Your task to perform on an android device: turn vacation reply on in the gmail app Image 0: 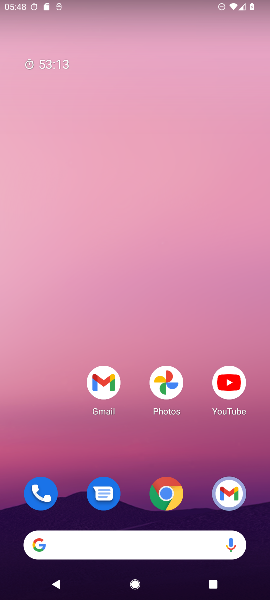
Step 0: press home button
Your task to perform on an android device: turn vacation reply on in the gmail app Image 1: 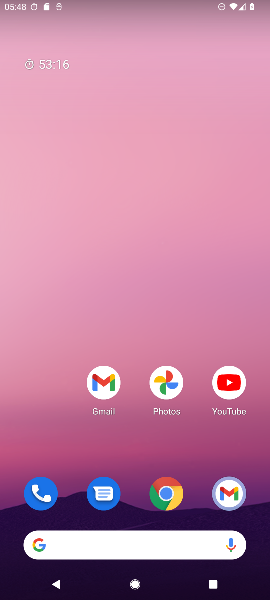
Step 1: drag from (58, 458) to (65, 114)
Your task to perform on an android device: turn vacation reply on in the gmail app Image 2: 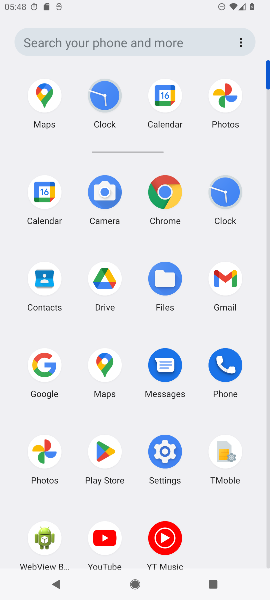
Step 2: click (224, 280)
Your task to perform on an android device: turn vacation reply on in the gmail app Image 3: 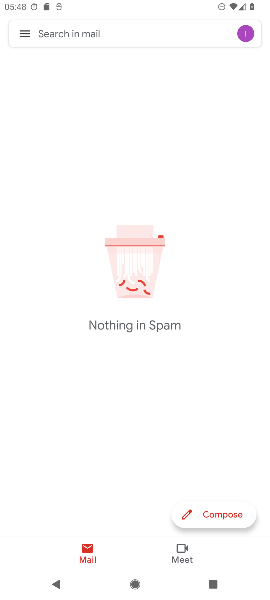
Step 3: click (23, 29)
Your task to perform on an android device: turn vacation reply on in the gmail app Image 4: 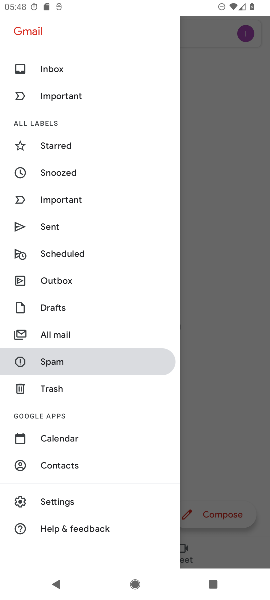
Step 4: click (72, 503)
Your task to perform on an android device: turn vacation reply on in the gmail app Image 5: 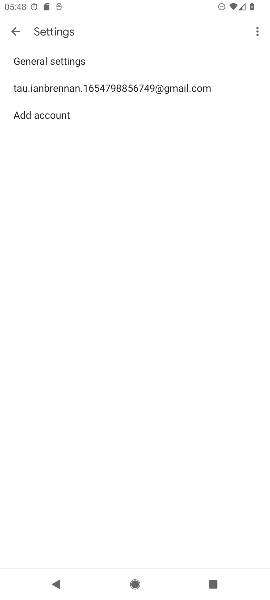
Step 5: click (156, 89)
Your task to perform on an android device: turn vacation reply on in the gmail app Image 6: 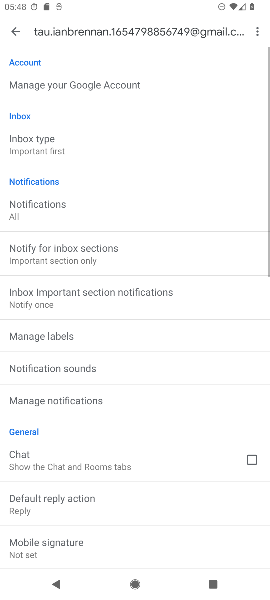
Step 6: drag from (200, 373) to (216, 254)
Your task to perform on an android device: turn vacation reply on in the gmail app Image 7: 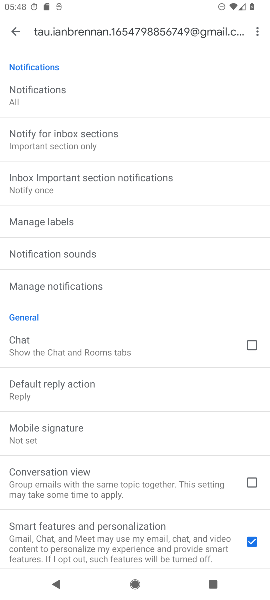
Step 7: drag from (196, 401) to (201, 294)
Your task to perform on an android device: turn vacation reply on in the gmail app Image 8: 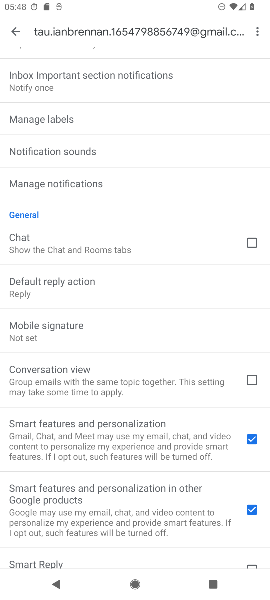
Step 8: drag from (187, 454) to (197, 301)
Your task to perform on an android device: turn vacation reply on in the gmail app Image 9: 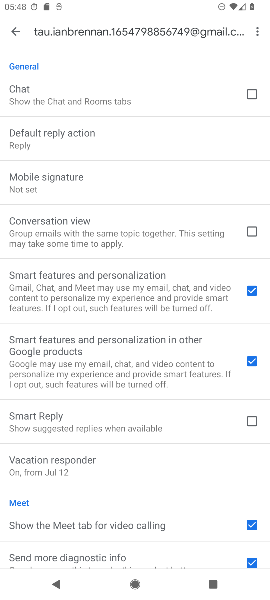
Step 9: drag from (179, 486) to (195, 332)
Your task to perform on an android device: turn vacation reply on in the gmail app Image 10: 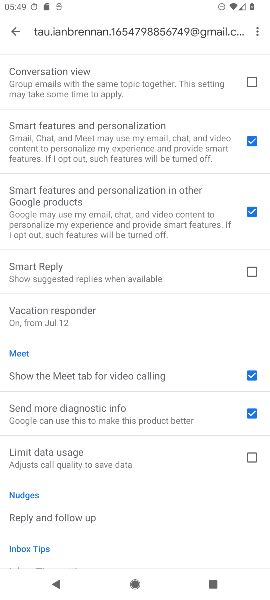
Step 10: drag from (190, 485) to (205, 309)
Your task to perform on an android device: turn vacation reply on in the gmail app Image 11: 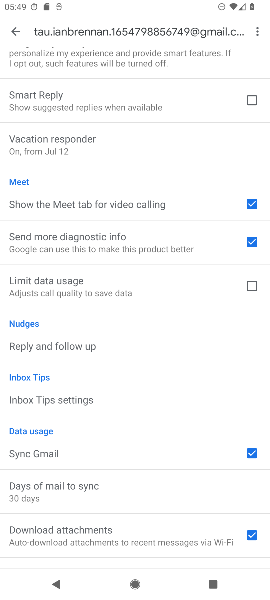
Step 11: drag from (181, 469) to (191, 297)
Your task to perform on an android device: turn vacation reply on in the gmail app Image 12: 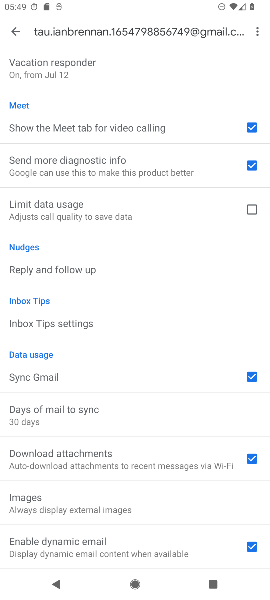
Step 12: drag from (199, 169) to (199, 275)
Your task to perform on an android device: turn vacation reply on in the gmail app Image 13: 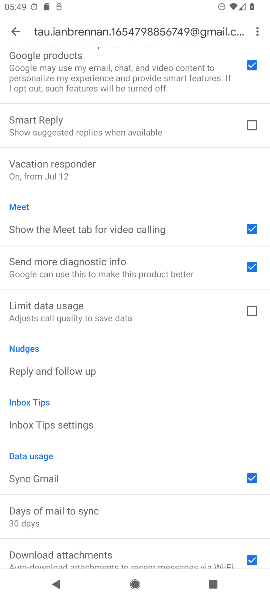
Step 13: drag from (212, 138) to (207, 247)
Your task to perform on an android device: turn vacation reply on in the gmail app Image 14: 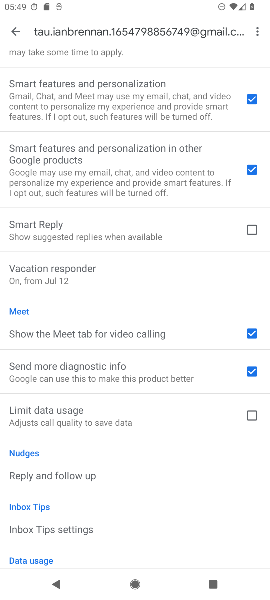
Step 14: drag from (194, 174) to (189, 250)
Your task to perform on an android device: turn vacation reply on in the gmail app Image 15: 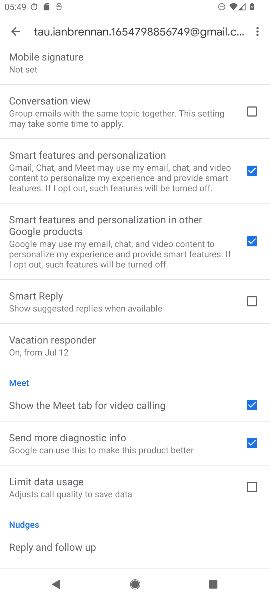
Step 15: click (144, 350)
Your task to perform on an android device: turn vacation reply on in the gmail app Image 16: 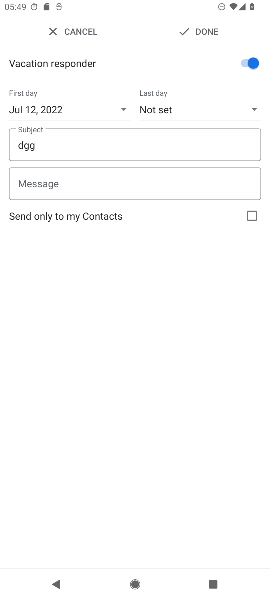
Step 16: task complete